Your task to perform on an android device: clear all cookies in the chrome app Image 0: 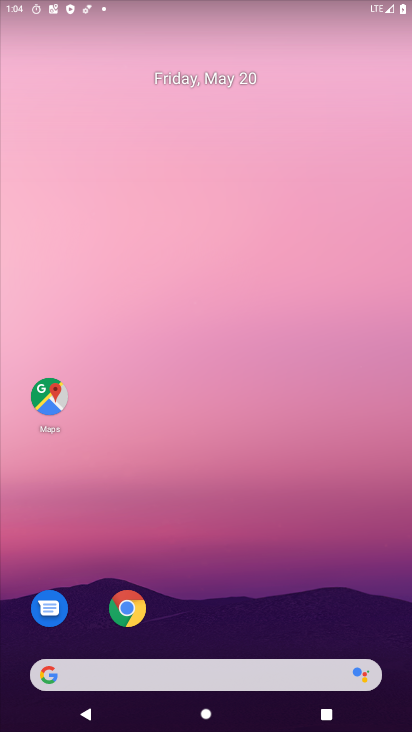
Step 0: drag from (328, 593) to (303, 127)
Your task to perform on an android device: clear all cookies in the chrome app Image 1: 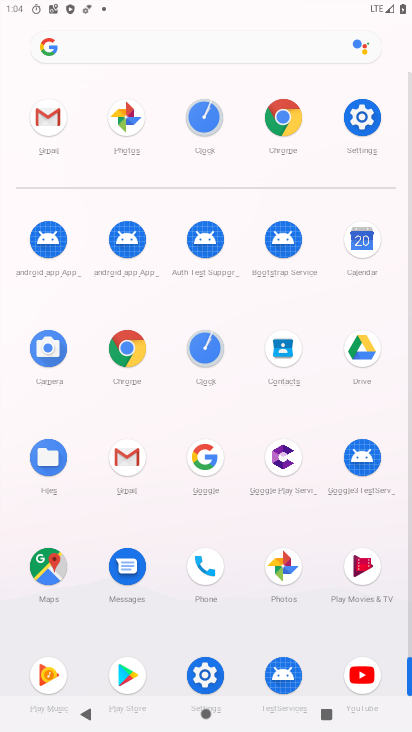
Step 1: click (127, 355)
Your task to perform on an android device: clear all cookies in the chrome app Image 2: 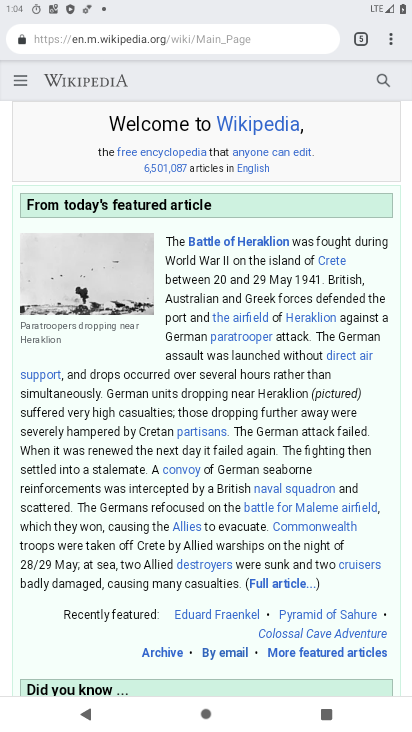
Step 2: click (393, 44)
Your task to perform on an android device: clear all cookies in the chrome app Image 3: 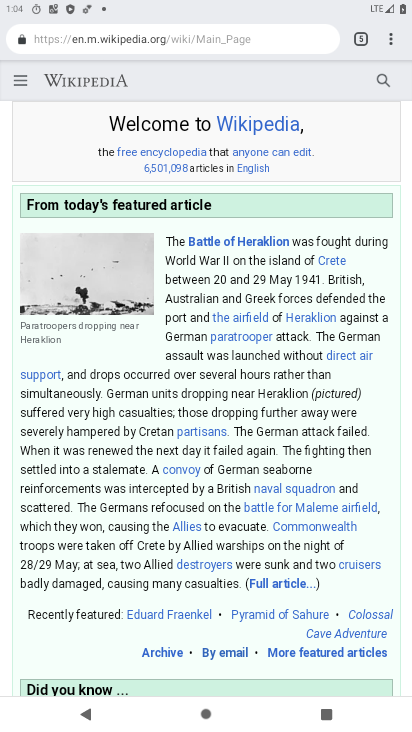
Step 3: drag from (391, 33) to (261, 215)
Your task to perform on an android device: clear all cookies in the chrome app Image 4: 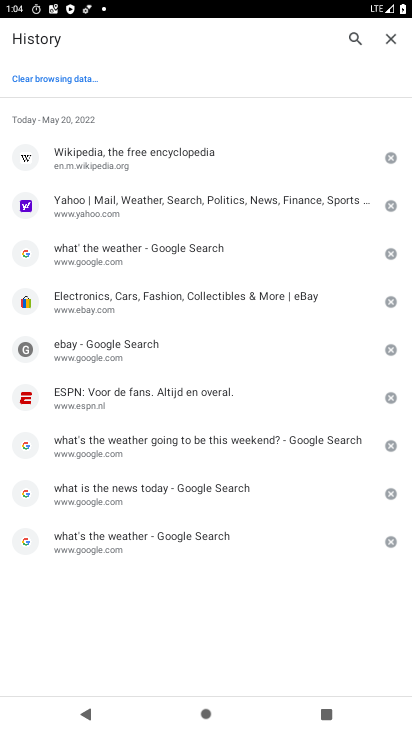
Step 4: click (50, 84)
Your task to perform on an android device: clear all cookies in the chrome app Image 5: 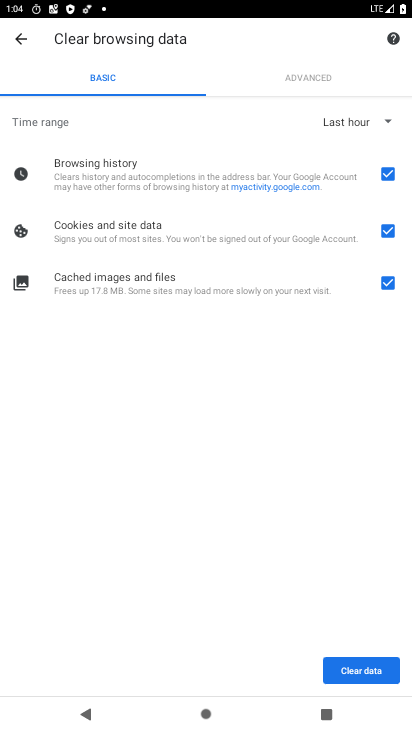
Step 5: click (375, 671)
Your task to perform on an android device: clear all cookies in the chrome app Image 6: 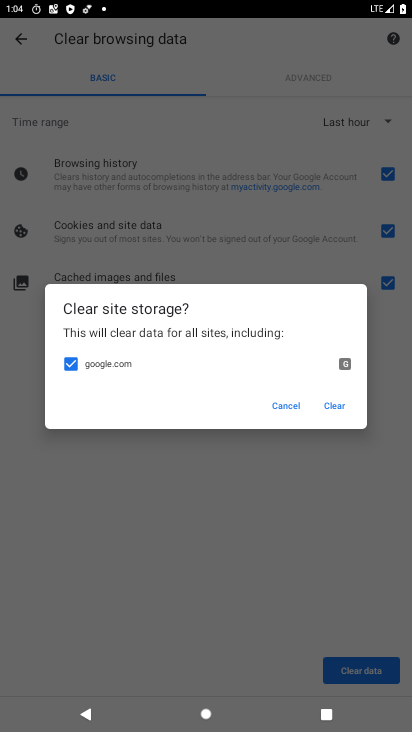
Step 6: click (343, 408)
Your task to perform on an android device: clear all cookies in the chrome app Image 7: 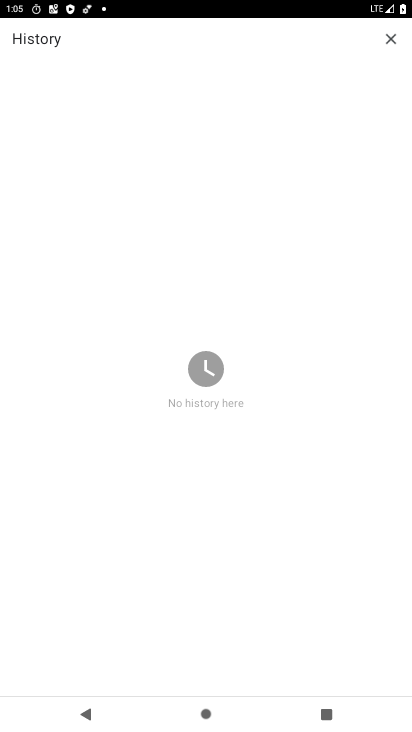
Step 7: task complete